Your task to perform on an android device: turn on showing notifications on the lock screen Image 0: 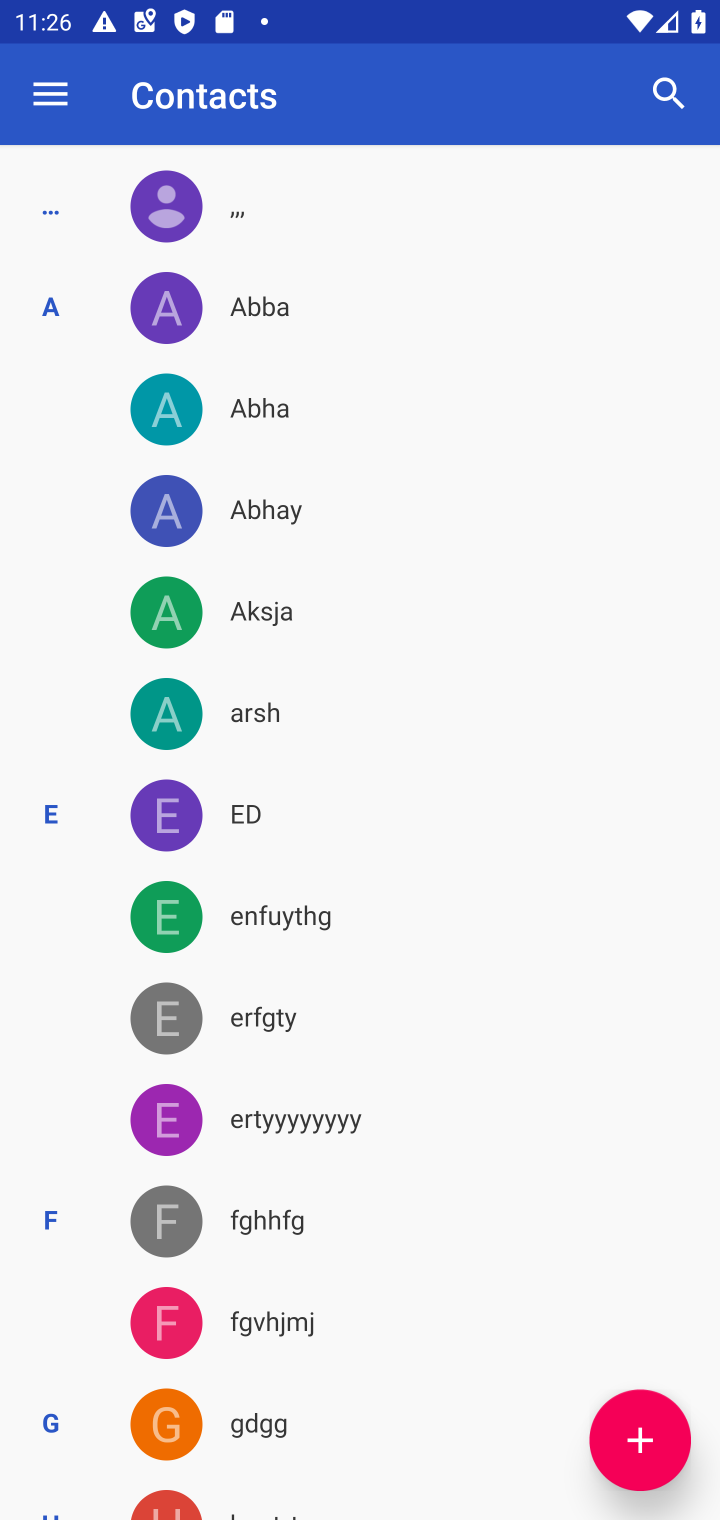
Step 0: press home button
Your task to perform on an android device: turn on showing notifications on the lock screen Image 1: 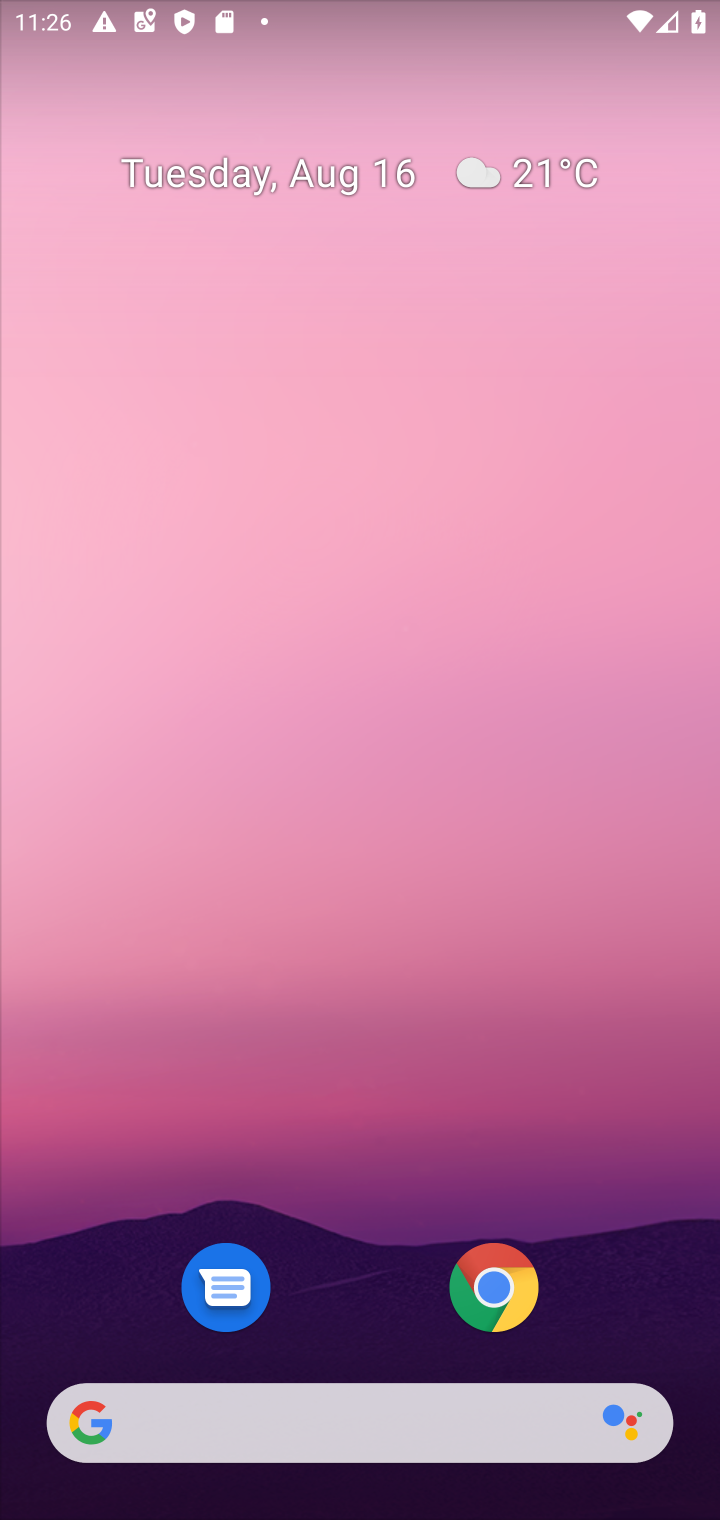
Step 1: drag from (675, 1340) to (606, 202)
Your task to perform on an android device: turn on showing notifications on the lock screen Image 2: 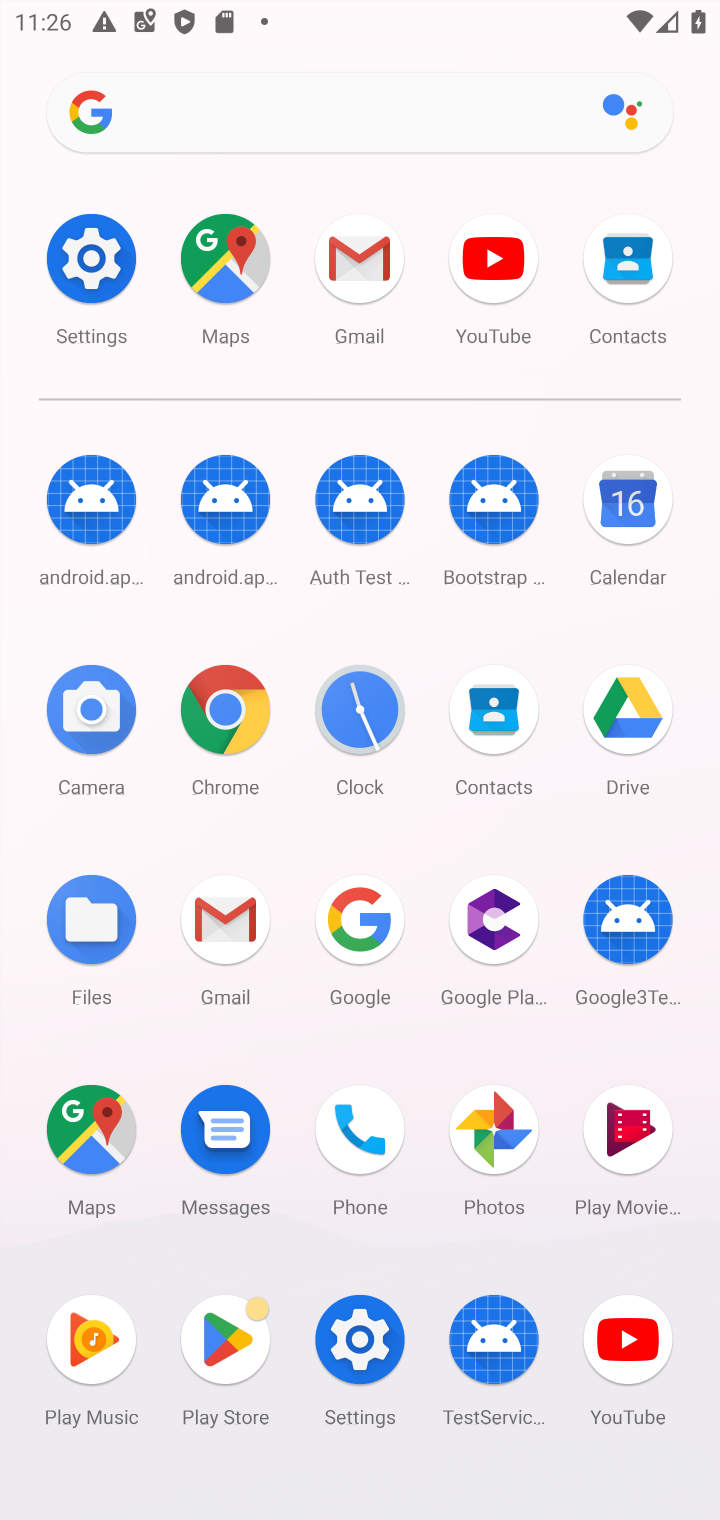
Step 2: click (363, 1340)
Your task to perform on an android device: turn on showing notifications on the lock screen Image 3: 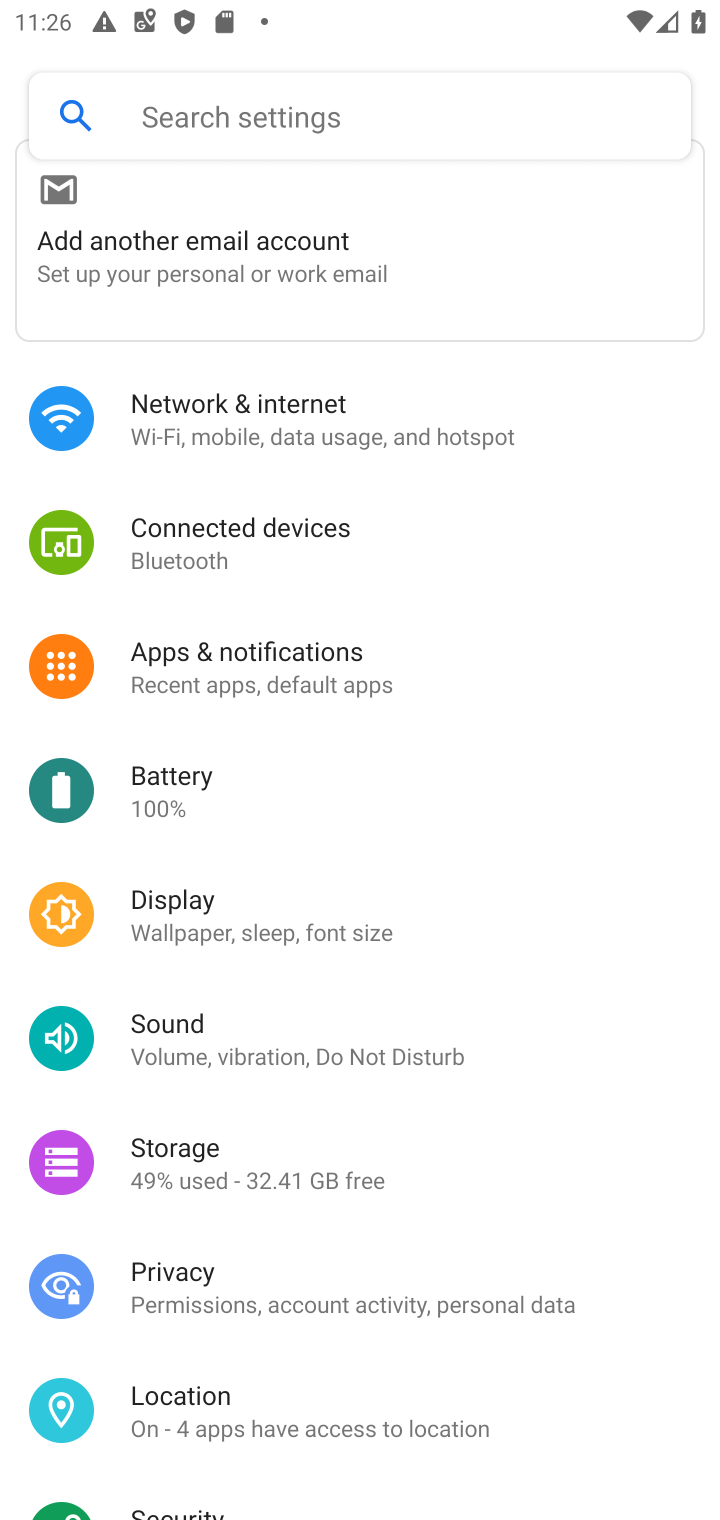
Step 3: click (243, 659)
Your task to perform on an android device: turn on showing notifications on the lock screen Image 4: 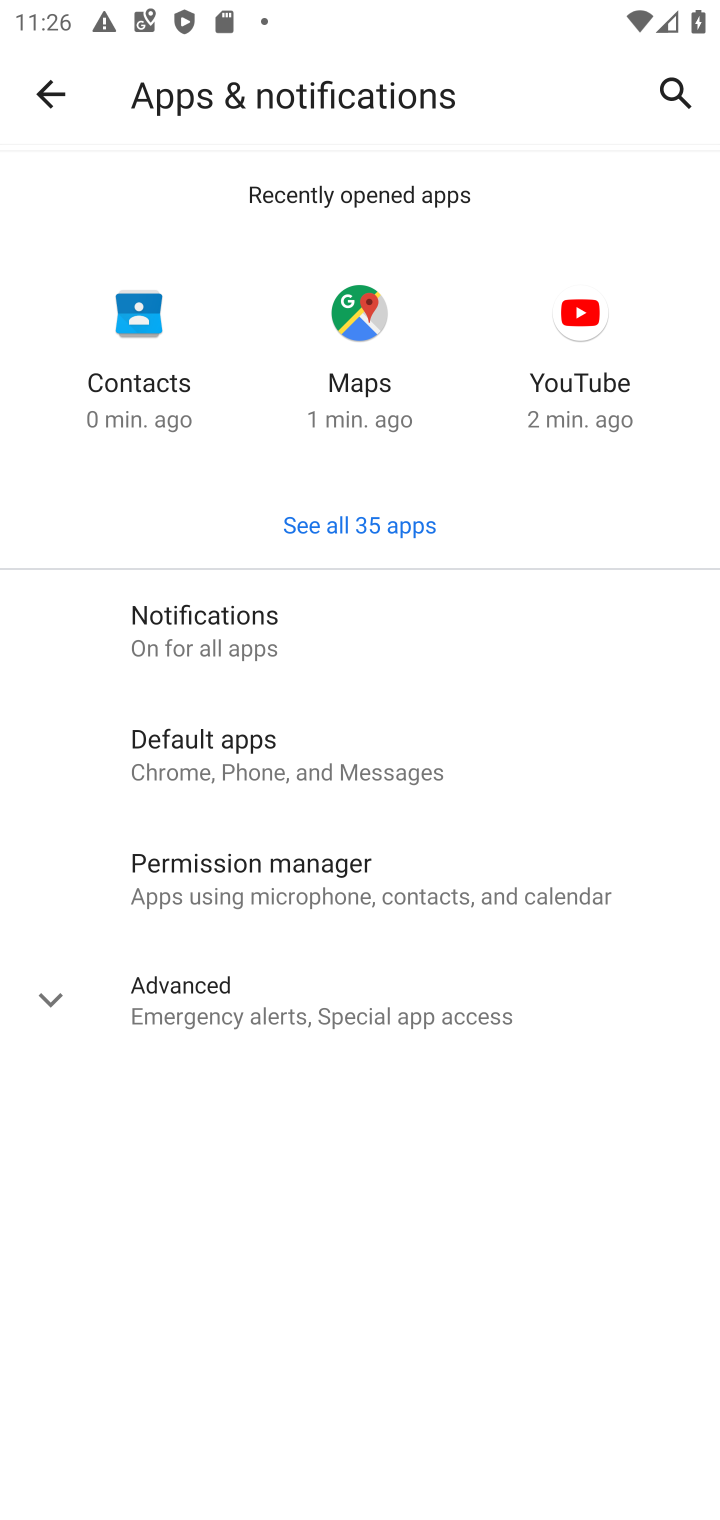
Step 4: click (222, 611)
Your task to perform on an android device: turn on showing notifications on the lock screen Image 5: 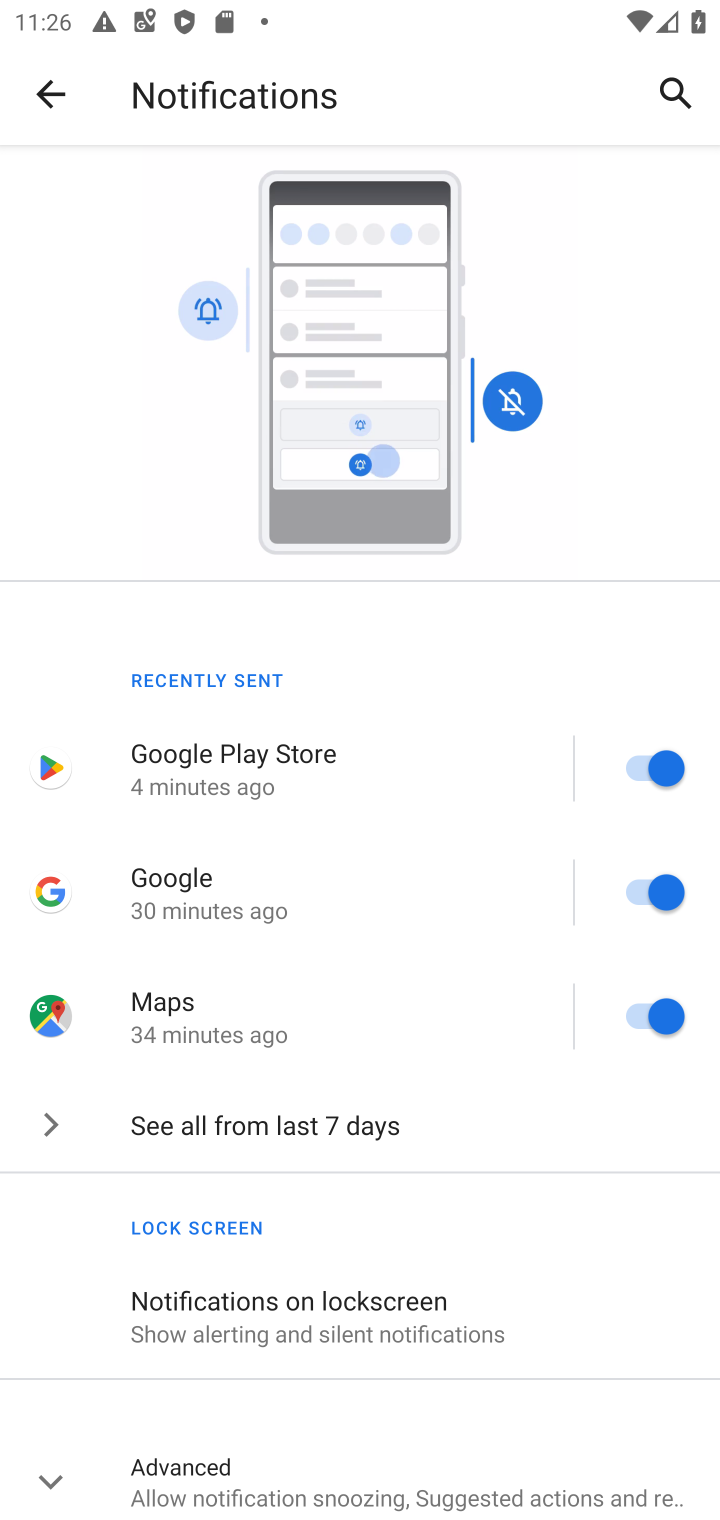
Step 5: drag from (457, 1269) to (508, 684)
Your task to perform on an android device: turn on showing notifications on the lock screen Image 6: 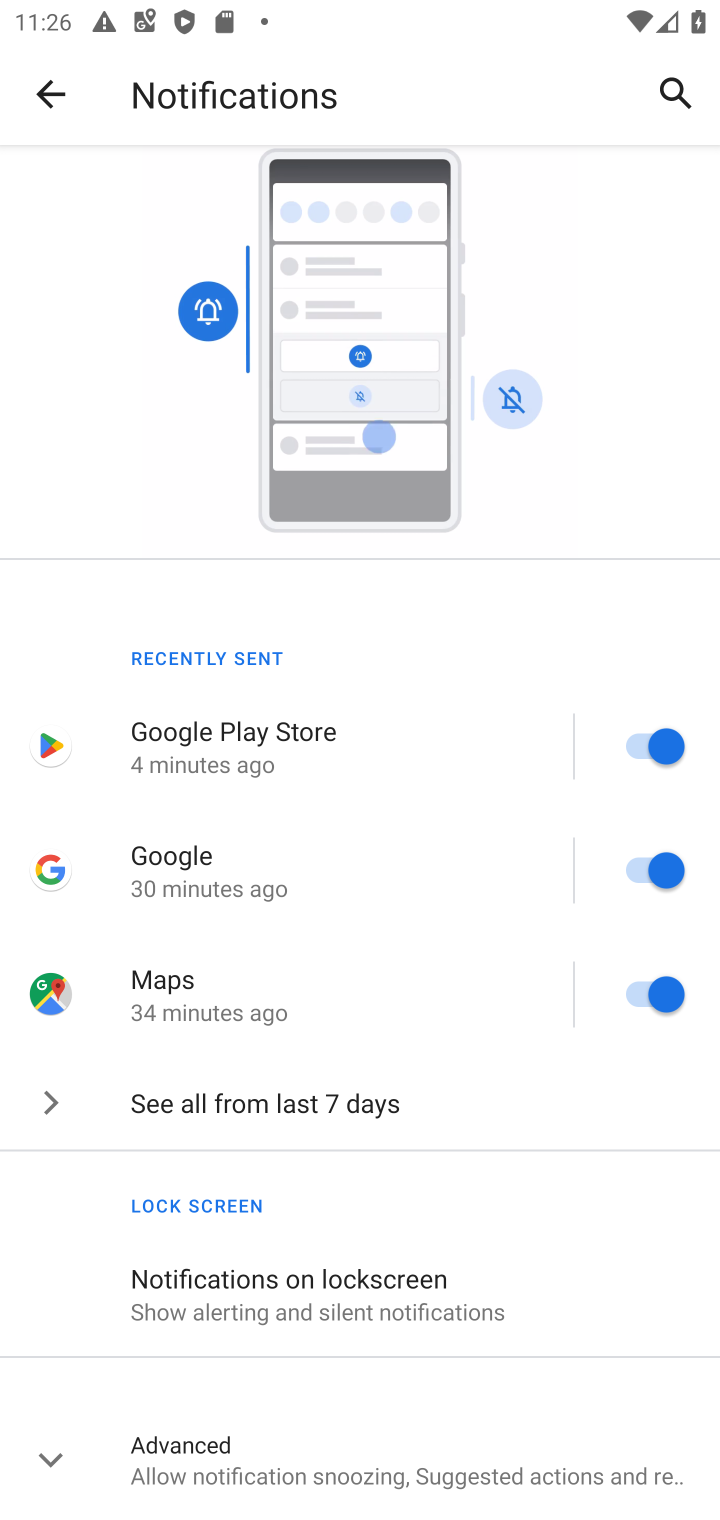
Step 6: click (245, 1287)
Your task to perform on an android device: turn on showing notifications on the lock screen Image 7: 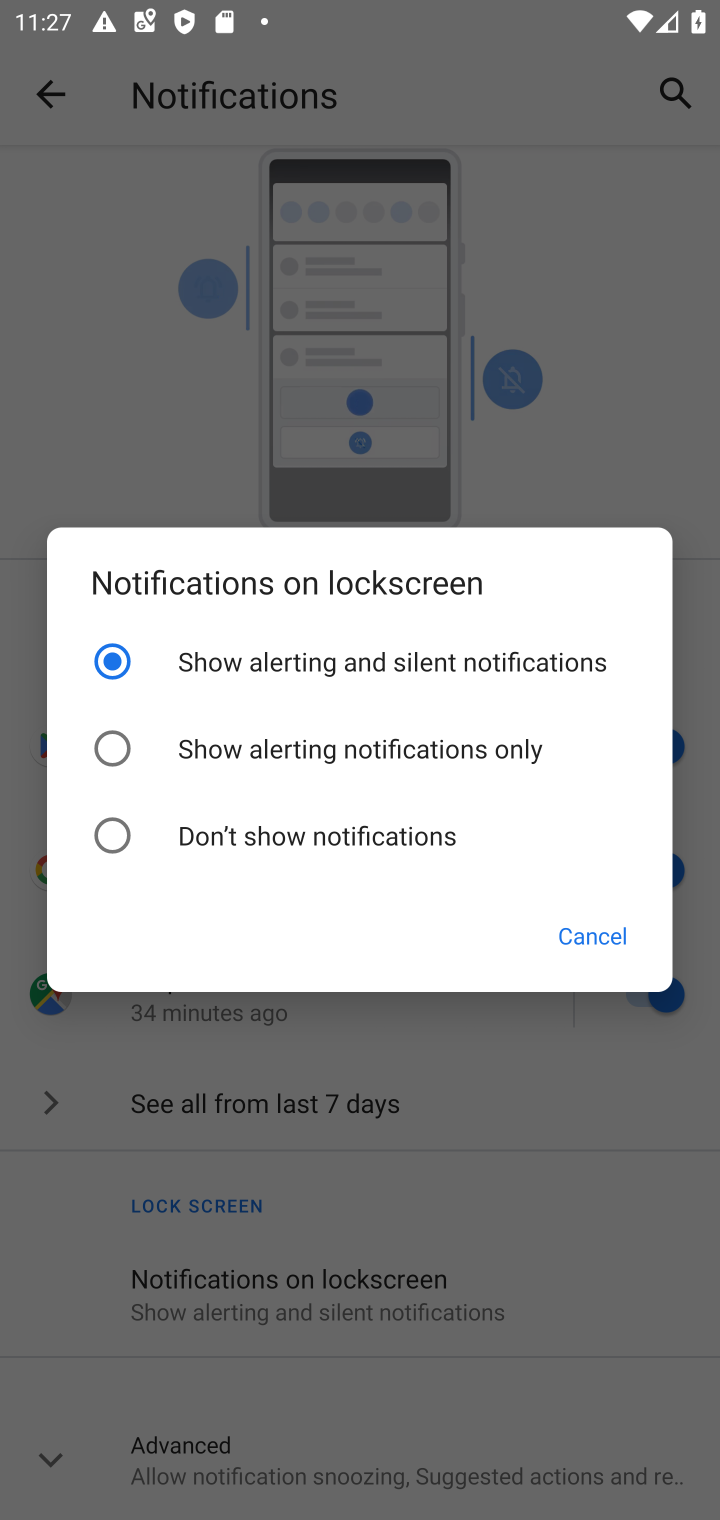
Step 7: task complete